Your task to perform on an android device: Add "macbook air" to the cart on bestbuy, then select checkout. Image 0: 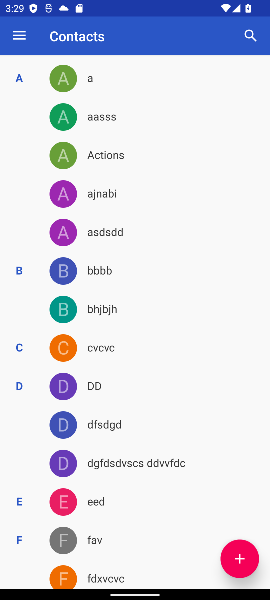
Step 0: press home button
Your task to perform on an android device: Add "macbook air" to the cart on bestbuy, then select checkout. Image 1: 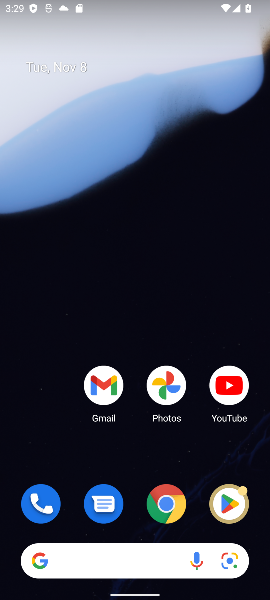
Step 1: drag from (172, 435) to (237, 100)
Your task to perform on an android device: Add "macbook air" to the cart on bestbuy, then select checkout. Image 2: 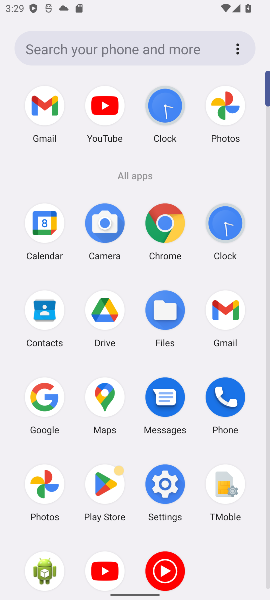
Step 2: click (170, 234)
Your task to perform on an android device: Add "macbook air" to the cart on bestbuy, then select checkout. Image 3: 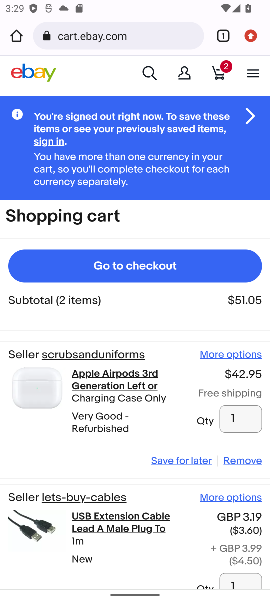
Step 3: click (127, 31)
Your task to perform on an android device: Add "macbook air" to the cart on bestbuy, then select checkout. Image 4: 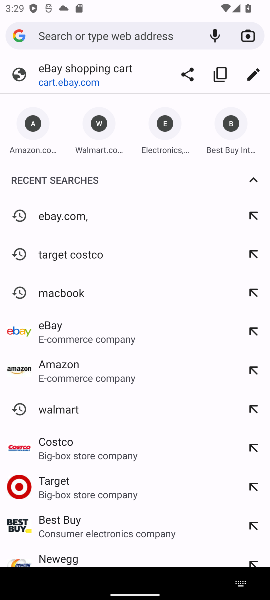
Step 4: type "bestbuy"
Your task to perform on an android device: Add "macbook air" to the cart on bestbuy, then select checkout. Image 5: 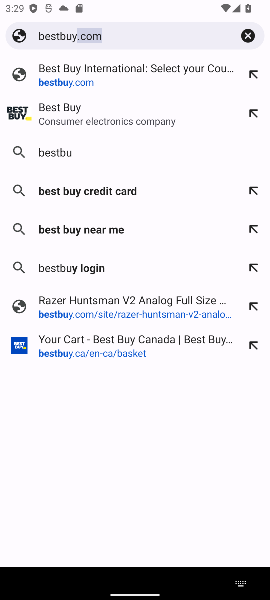
Step 5: press enter
Your task to perform on an android device: Add "macbook air" to the cart on bestbuy, then select checkout. Image 6: 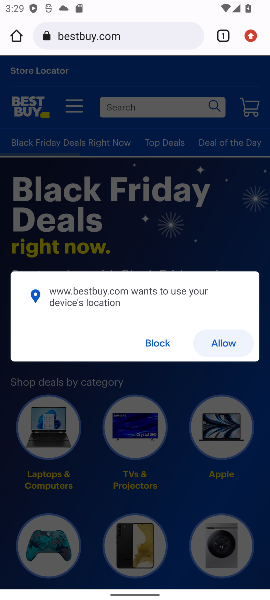
Step 6: click (219, 340)
Your task to perform on an android device: Add "macbook air" to the cart on bestbuy, then select checkout. Image 7: 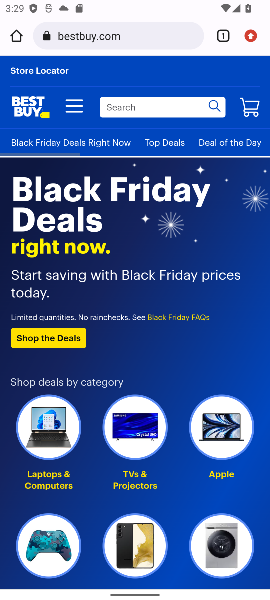
Step 7: click (152, 104)
Your task to perform on an android device: Add "macbook air" to the cart on bestbuy, then select checkout. Image 8: 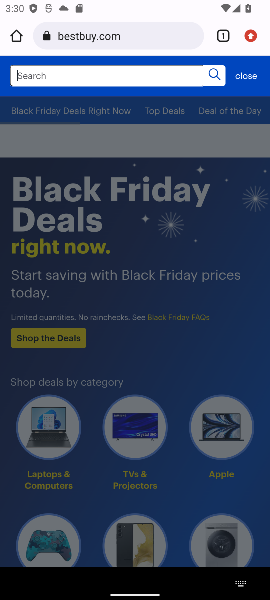
Step 8: type "macbook air"
Your task to perform on an android device: Add "macbook air" to the cart on bestbuy, then select checkout. Image 9: 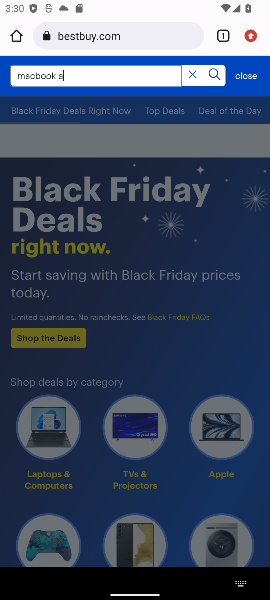
Step 9: press enter
Your task to perform on an android device: Add "macbook air" to the cart on bestbuy, then select checkout. Image 10: 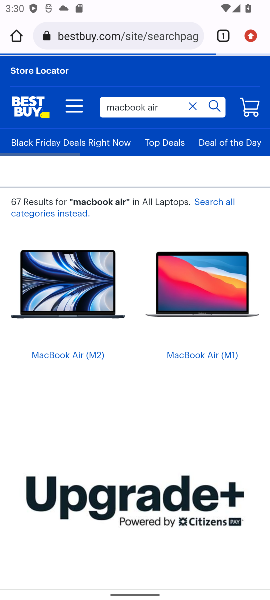
Step 10: drag from (151, 469) to (171, 215)
Your task to perform on an android device: Add "macbook air" to the cart on bestbuy, then select checkout. Image 11: 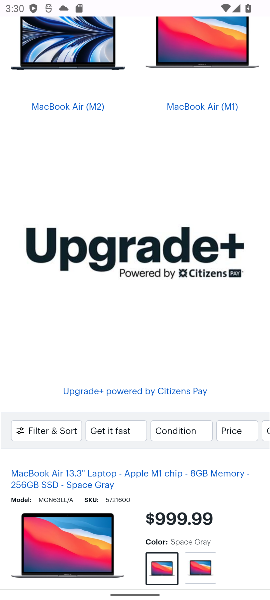
Step 11: drag from (177, 459) to (181, 230)
Your task to perform on an android device: Add "macbook air" to the cart on bestbuy, then select checkout. Image 12: 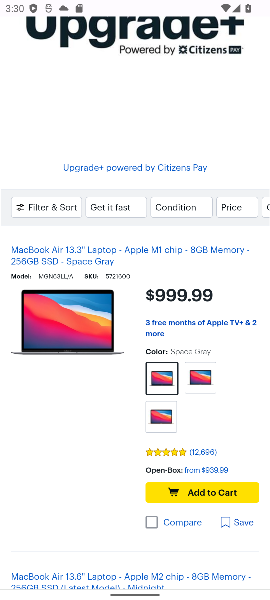
Step 12: click (193, 499)
Your task to perform on an android device: Add "macbook air" to the cart on bestbuy, then select checkout. Image 13: 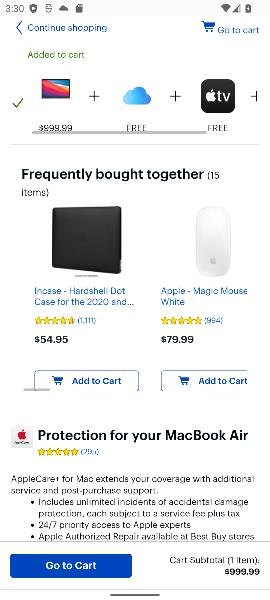
Step 13: task complete